Your task to perform on an android device: open wifi settings Image 0: 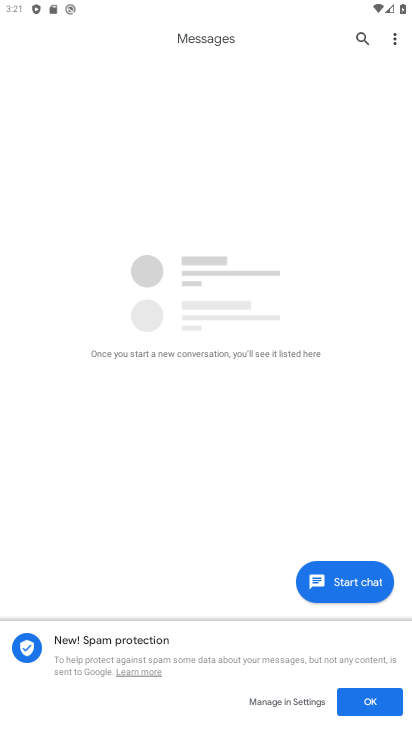
Step 0: press home button
Your task to perform on an android device: open wifi settings Image 1: 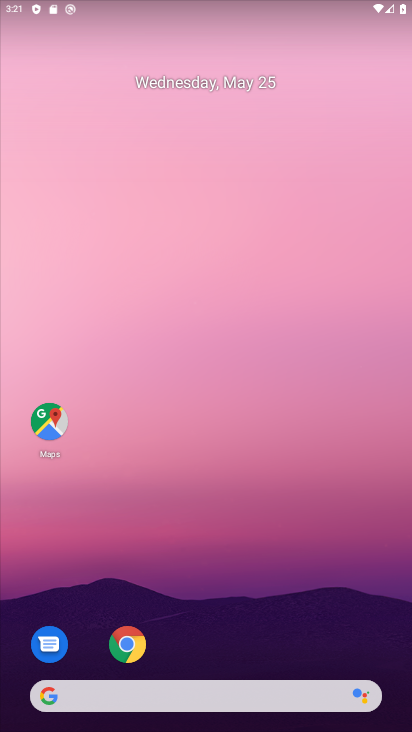
Step 1: drag from (231, 670) to (299, 2)
Your task to perform on an android device: open wifi settings Image 2: 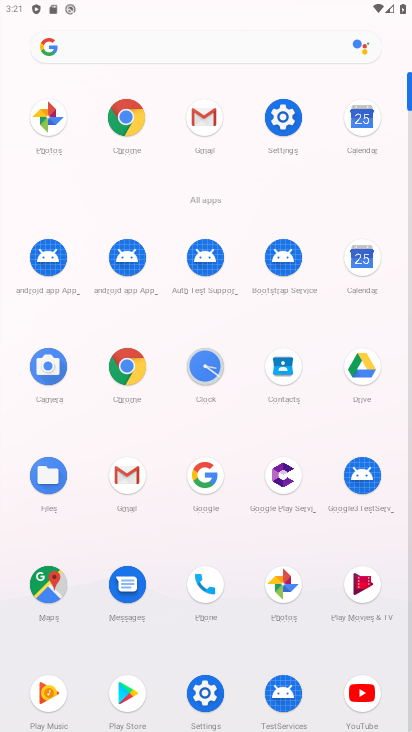
Step 2: click (281, 123)
Your task to perform on an android device: open wifi settings Image 3: 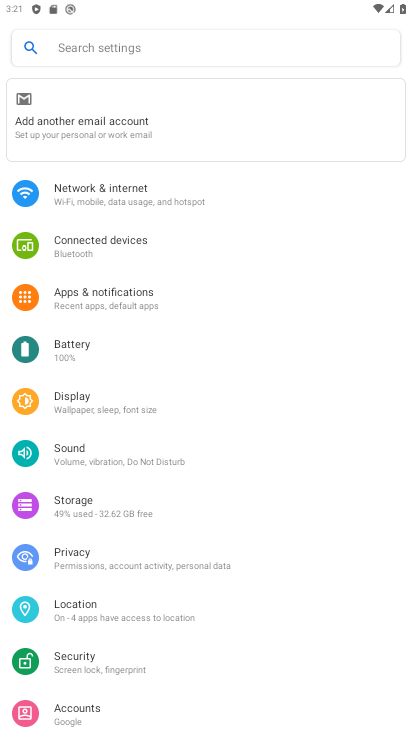
Step 3: click (99, 196)
Your task to perform on an android device: open wifi settings Image 4: 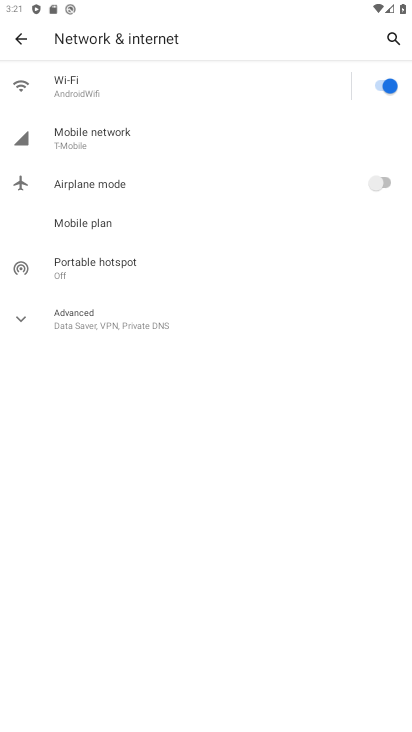
Step 4: click (48, 88)
Your task to perform on an android device: open wifi settings Image 5: 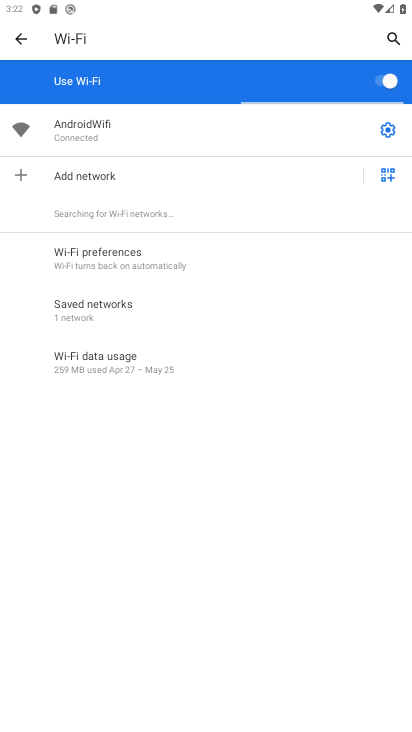
Step 5: task complete